Your task to perform on an android device: toggle priority inbox in the gmail app Image 0: 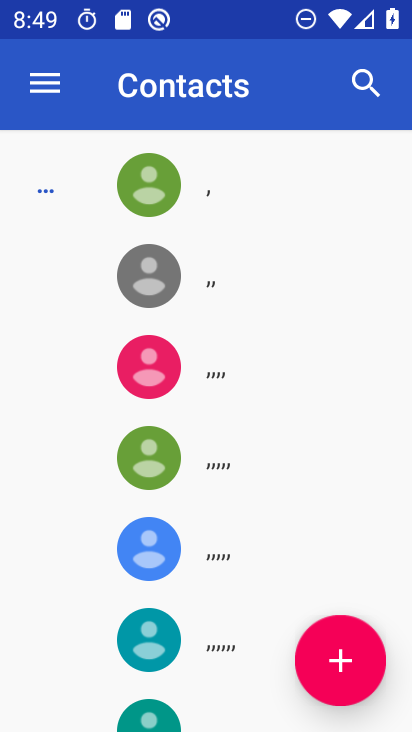
Step 0: press home button
Your task to perform on an android device: toggle priority inbox in the gmail app Image 1: 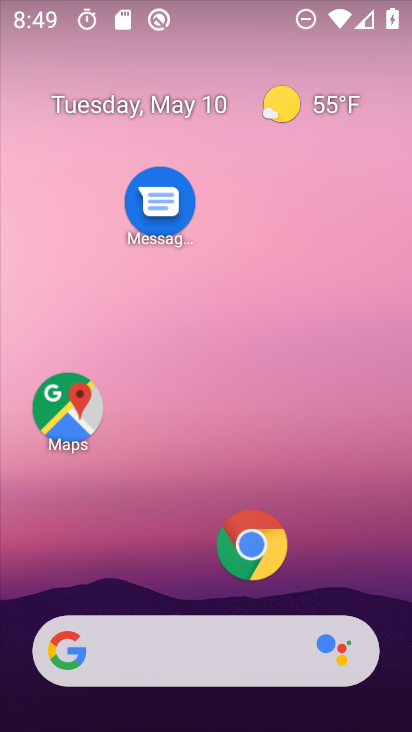
Step 1: drag from (188, 587) to (146, 176)
Your task to perform on an android device: toggle priority inbox in the gmail app Image 2: 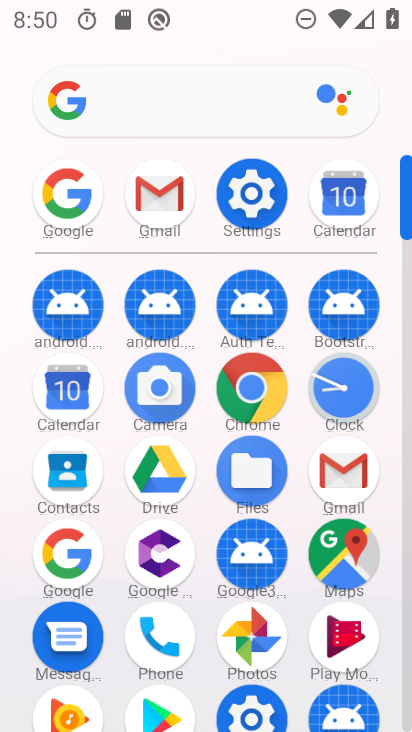
Step 2: click (149, 210)
Your task to perform on an android device: toggle priority inbox in the gmail app Image 3: 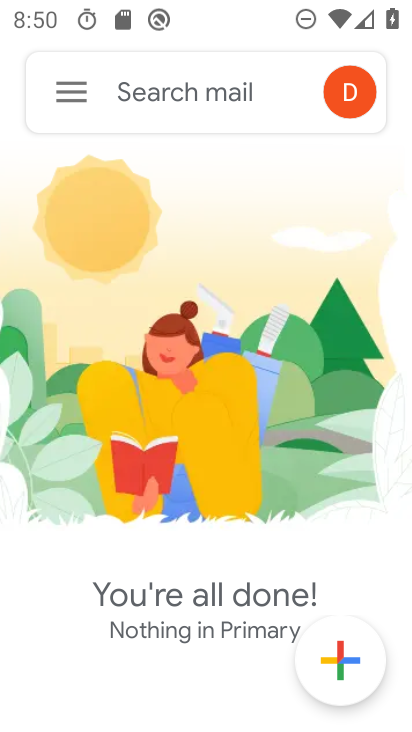
Step 3: click (74, 92)
Your task to perform on an android device: toggle priority inbox in the gmail app Image 4: 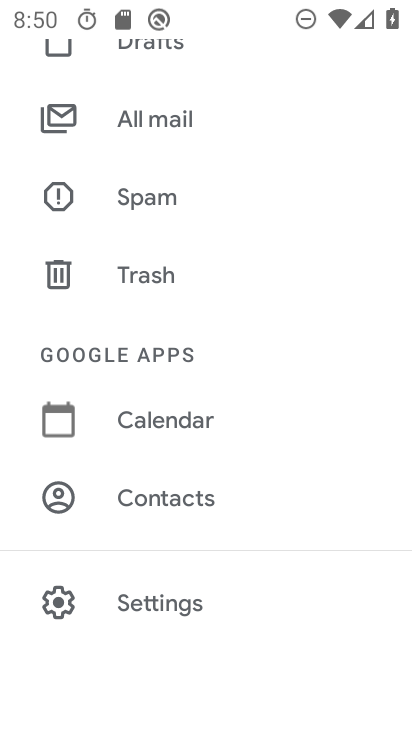
Step 4: click (189, 582)
Your task to perform on an android device: toggle priority inbox in the gmail app Image 5: 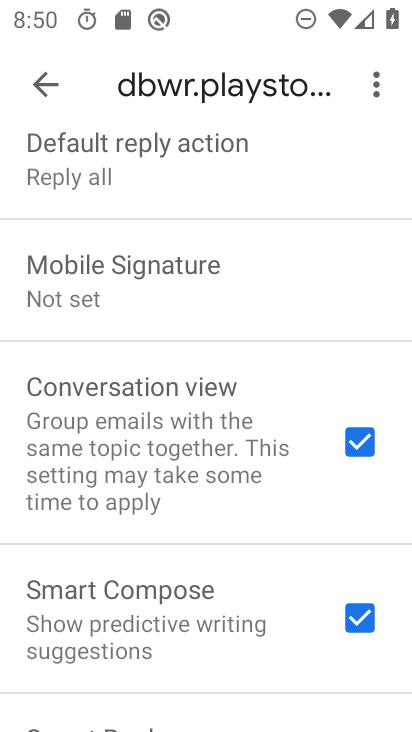
Step 5: click (200, 659)
Your task to perform on an android device: toggle priority inbox in the gmail app Image 6: 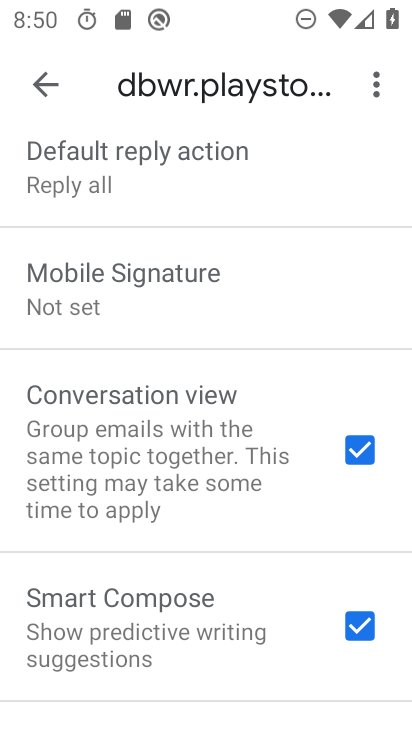
Step 6: drag from (194, 232) to (215, 618)
Your task to perform on an android device: toggle priority inbox in the gmail app Image 7: 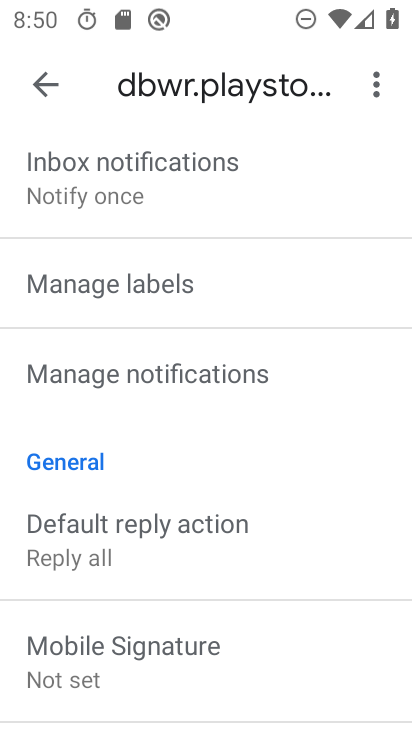
Step 7: drag from (193, 250) to (198, 616)
Your task to perform on an android device: toggle priority inbox in the gmail app Image 8: 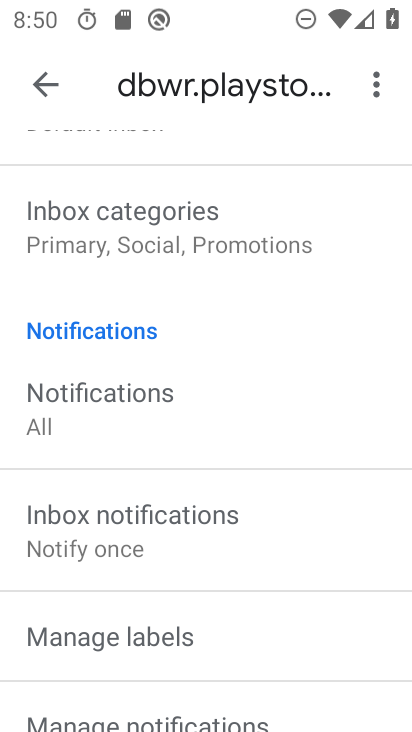
Step 8: drag from (186, 264) to (176, 502)
Your task to perform on an android device: toggle priority inbox in the gmail app Image 9: 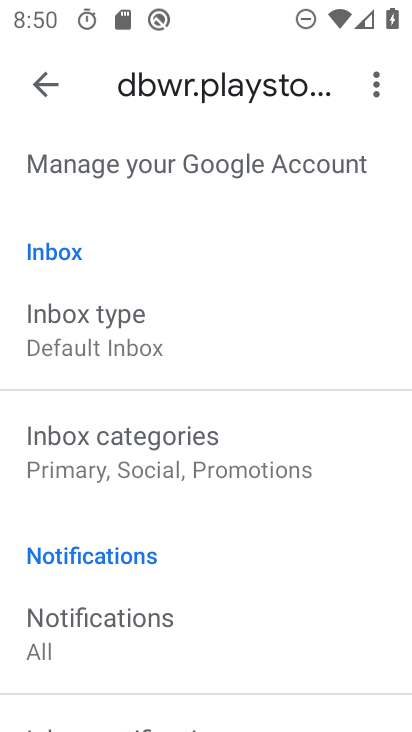
Step 9: click (114, 315)
Your task to perform on an android device: toggle priority inbox in the gmail app Image 10: 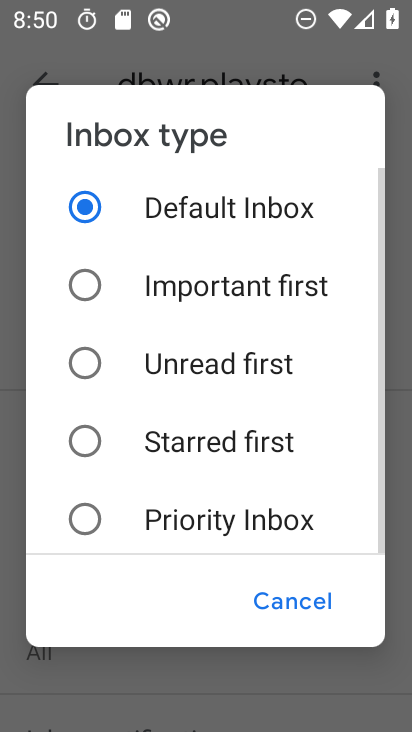
Step 10: click (177, 499)
Your task to perform on an android device: toggle priority inbox in the gmail app Image 11: 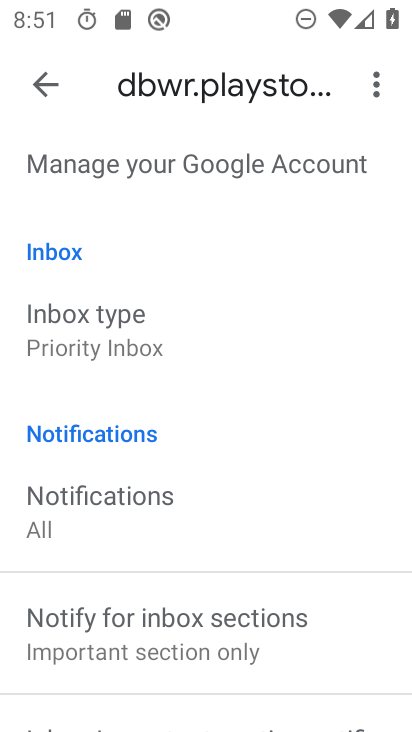
Step 11: task complete